Your task to perform on an android device: add a contact Image 0: 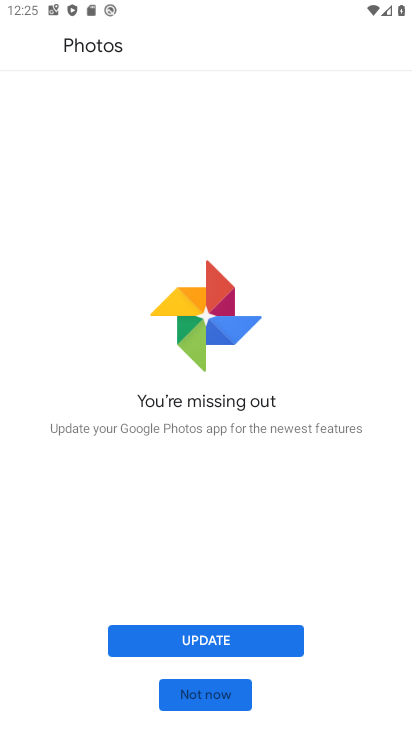
Step 0: press home button
Your task to perform on an android device: add a contact Image 1: 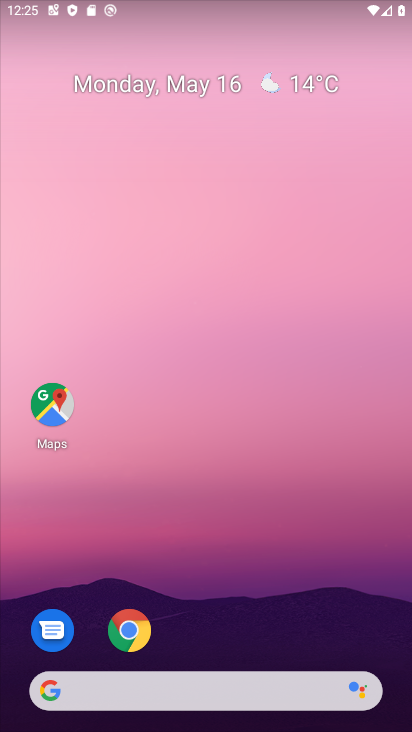
Step 1: drag from (303, 643) to (313, 145)
Your task to perform on an android device: add a contact Image 2: 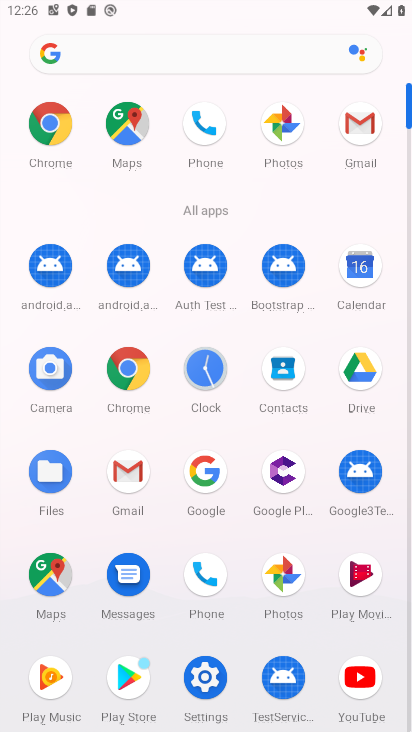
Step 2: click (286, 381)
Your task to perform on an android device: add a contact Image 3: 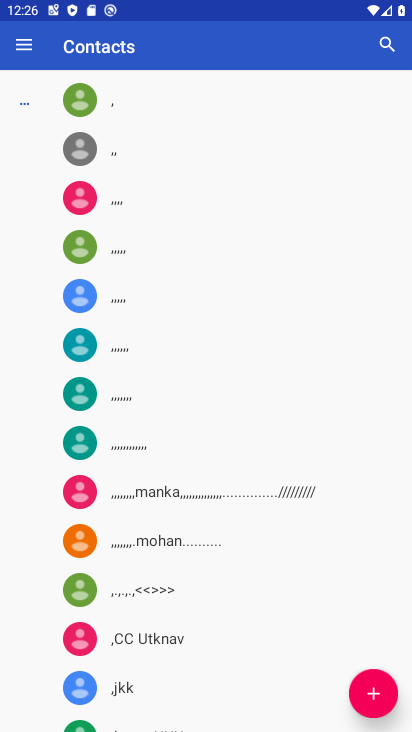
Step 3: task complete